Your task to perform on an android device: allow cookies in the chrome app Image 0: 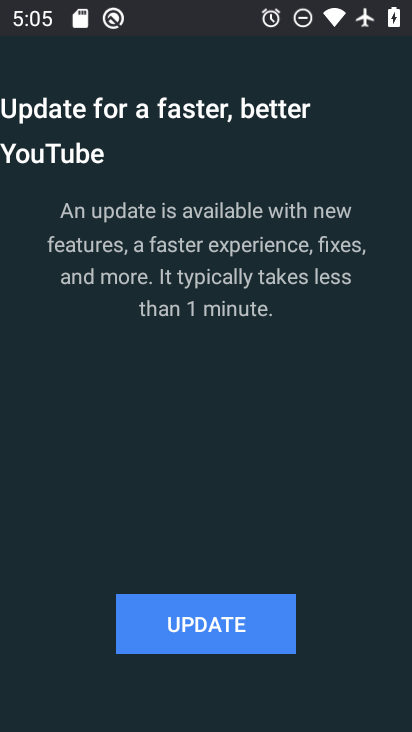
Step 0: press home button
Your task to perform on an android device: allow cookies in the chrome app Image 1: 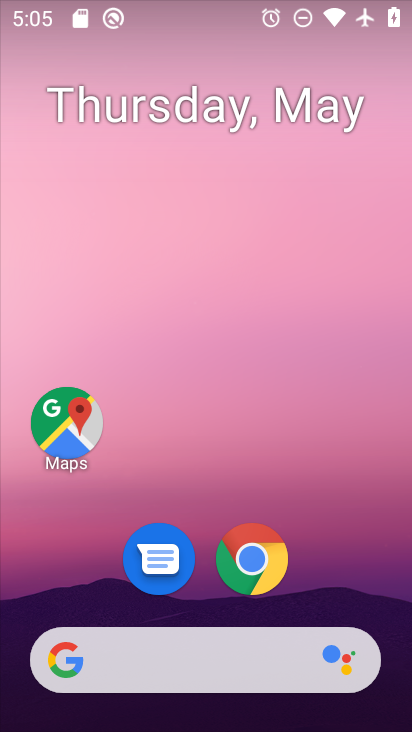
Step 1: drag from (386, 561) to (274, 9)
Your task to perform on an android device: allow cookies in the chrome app Image 2: 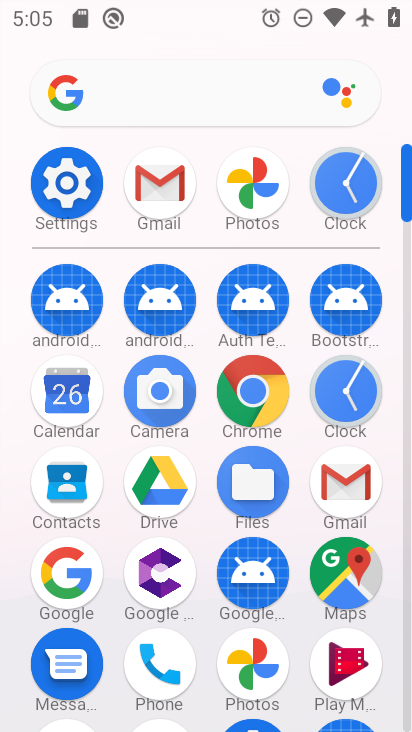
Step 2: click (260, 389)
Your task to perform on an android device: allow cookies in the chrome app Image 3: 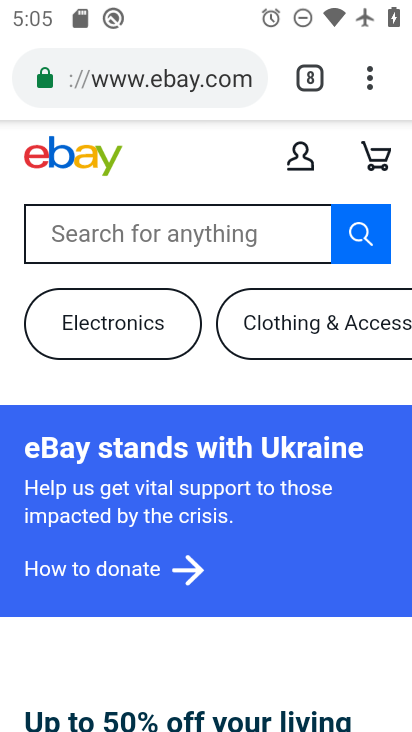
Step 3: click (366, 76)
Your task to perform on an android device: allow cookies in the chrome app Image 4: 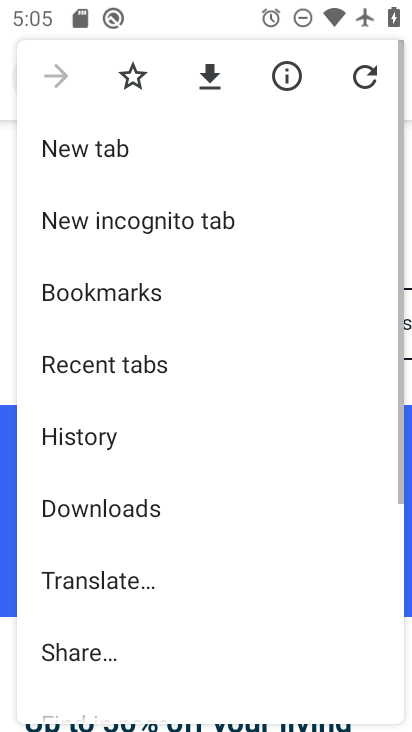
Step 4: drag from (231, 611) to (192, 74)
Your task to perform on an android device: allow cookies in the chrome app Image 5: 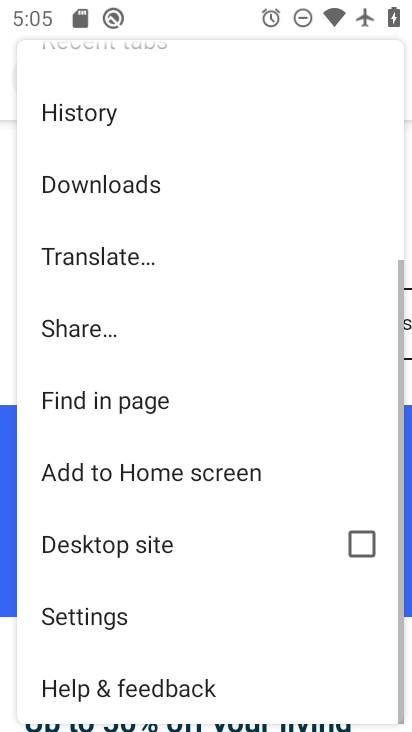
Step 5: click (153, 609)
Your task to perform on an android device: allow cookies in the chrome app Image 6: 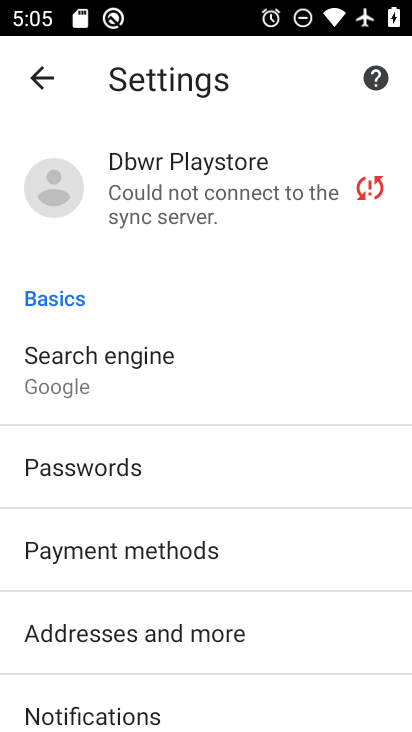
Step 6: drag from (249, 599) to (201, 99)
Your task to perform on an android device: allow cookies in the chrome app Image 7: 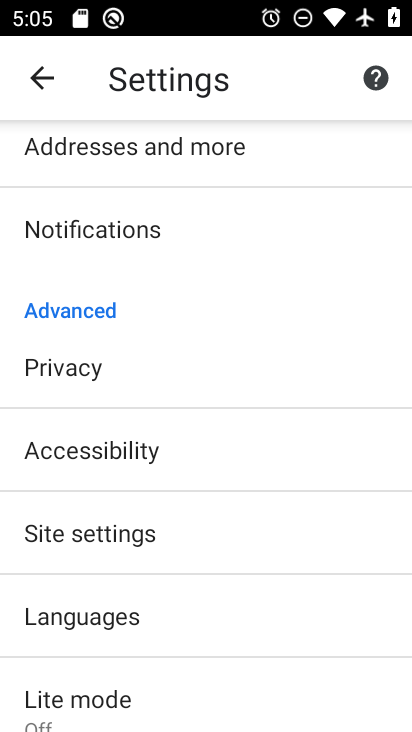
Step 7: drag from (197, 641) to (168, 104)
Your task to perform on an android device: allow cookies in the chrome app Image 8: 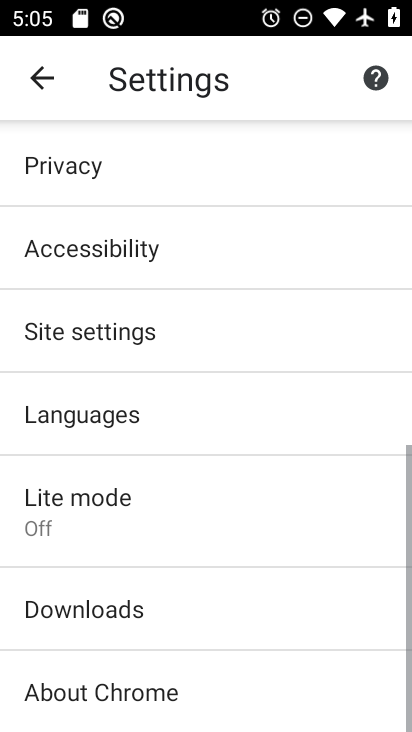
Step 8: click (136, 333)
Your task to perform on an android device: allow cookies in the chrome app Image 9: 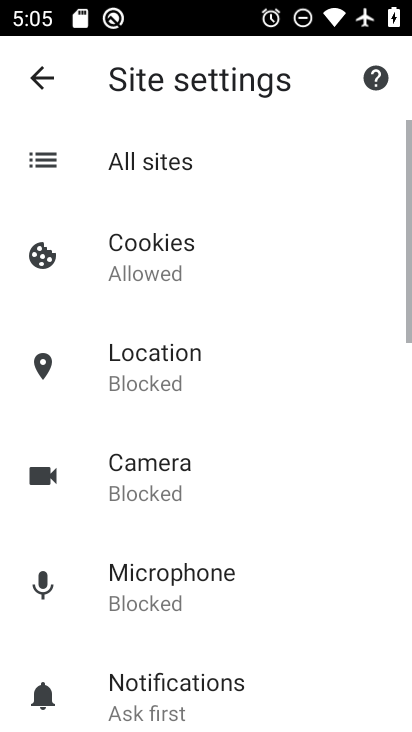
Step 9: click (220, 288)
Your task to perform on an android device: allow cookies in the chrome app Image 10: 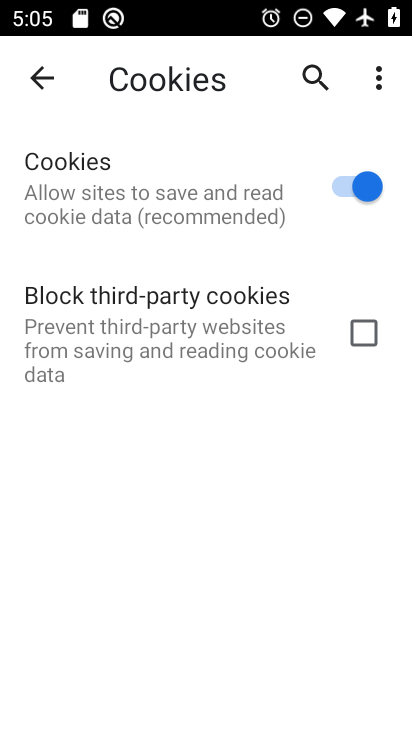
Step 10: task complete